Your task to perform on an android device: choose inbox layout in the gmail app Image 0: 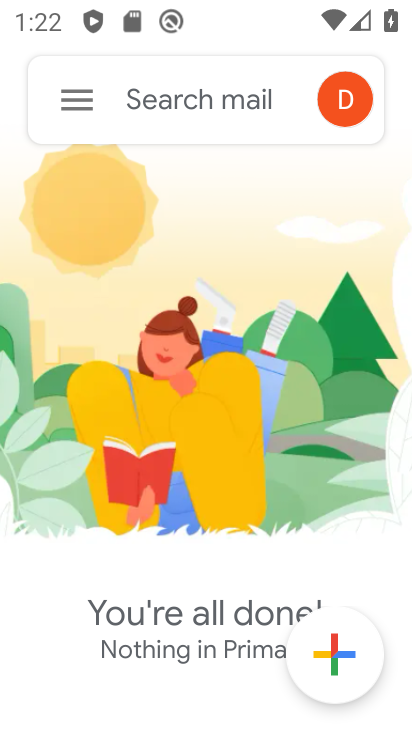
Step 0: drag from (226, 578) to (259, 305)
Your task to perform on an android device: choose inbox layout in the gmail app Image 1: 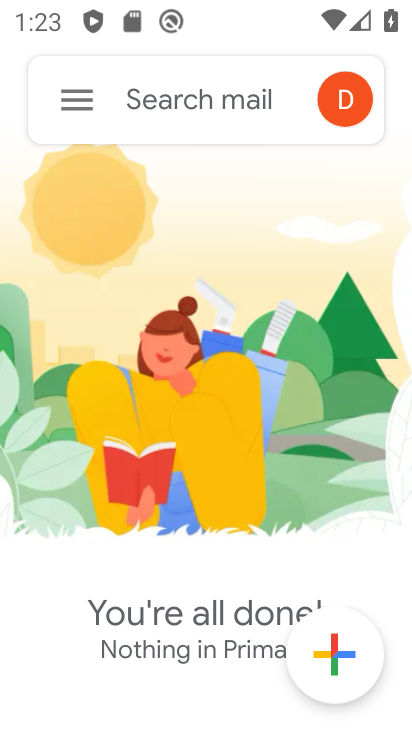
Step 1: click (66, 83)
Your task to perform on an android device: choose inbox layout in the gmail app Image 2: 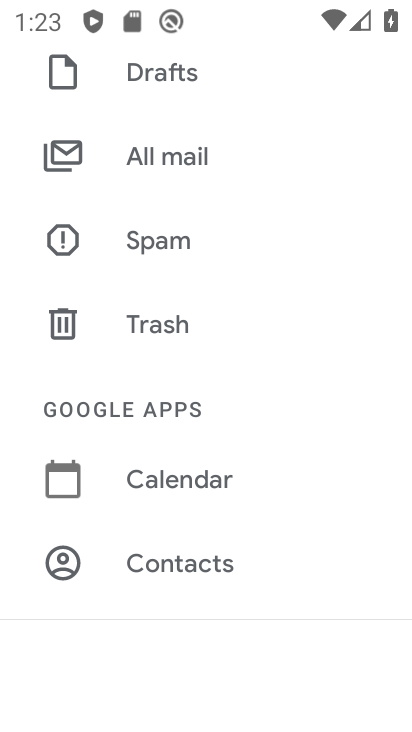
Step 2: drag from (106, 133) to (187, 657)
Your task to perform on an android device: choose inbox layout in the gmail app Image 3: 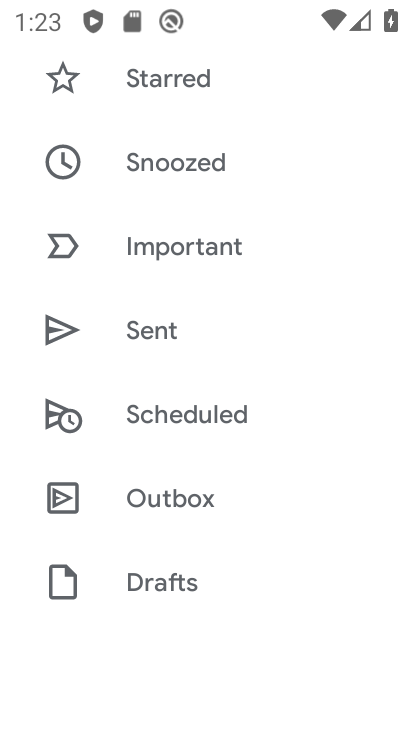
Step 3: drag from (150, 197) to (319, 584)
Your task to perform on an android device: choose inbox layout in the gmail app Image 4: 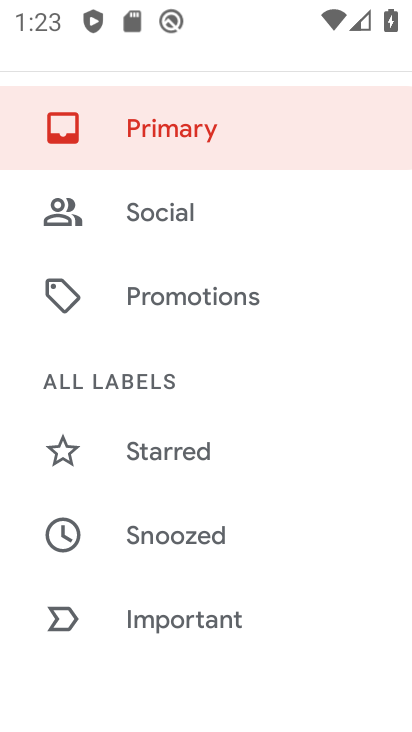
Step 4: drag from (194, 217) to (300, 603)
Your task to perform on an android device: choose inbox layout in the gmail app Image 5: 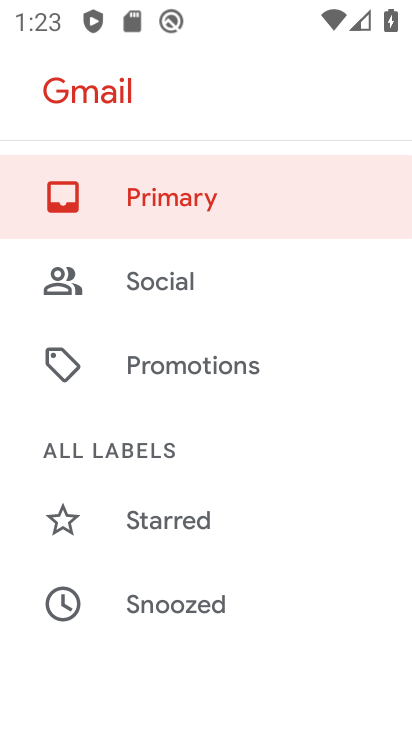
Step 5: click (231, 192)
Your task to perform on an android device: choose inbox layout in the gmail app Image 6: 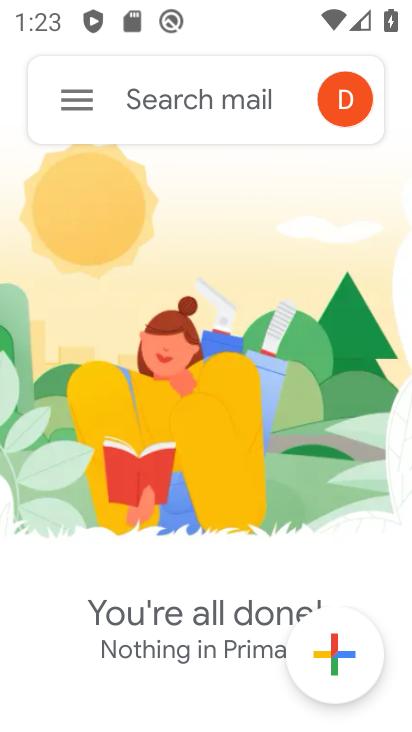
Step 6: click (90, 112)
Your task to perform on an android device: choose inbox layout in the gmail app Image 7: 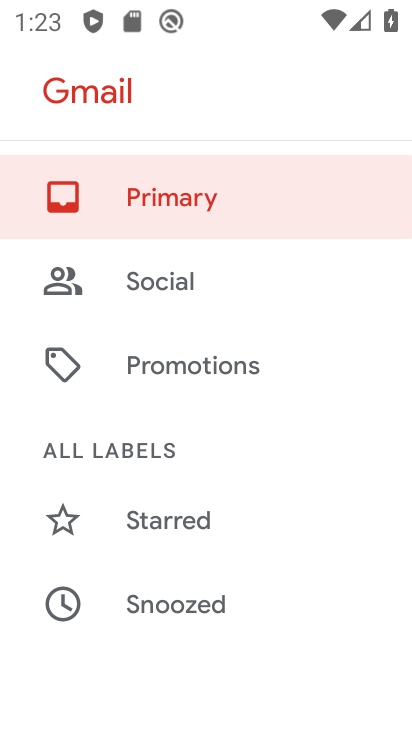
Step 7: click (185, 215)
Your task to perform on an android device: choose inbox layout in the gmail app Image 8: 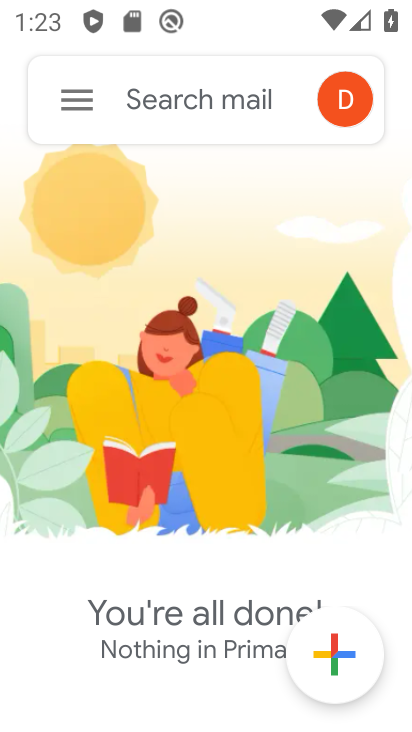
Step 8: task complete